Your task to perform on an android device: Go to calendar. Show me events next week Image 0: 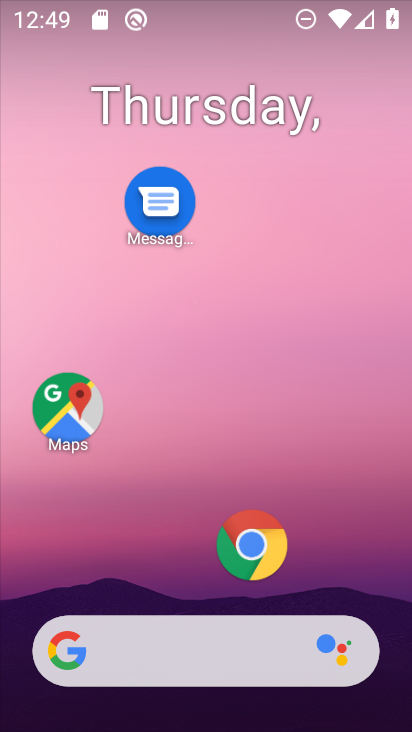
Step 0: drag from (187, 564) to (191, 199)
Your task to perform on an android device: Go to calendar. Show me events next week Image 1: 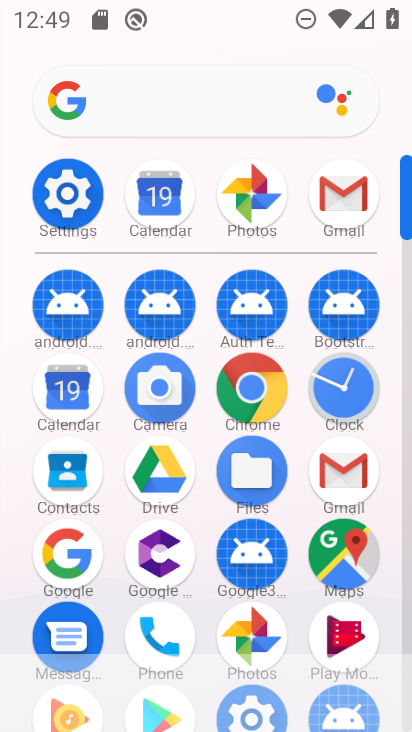
Step 1: click (131, 198)
Your task to perform on an android device: Go to calendar. Show me events next week Image 2: 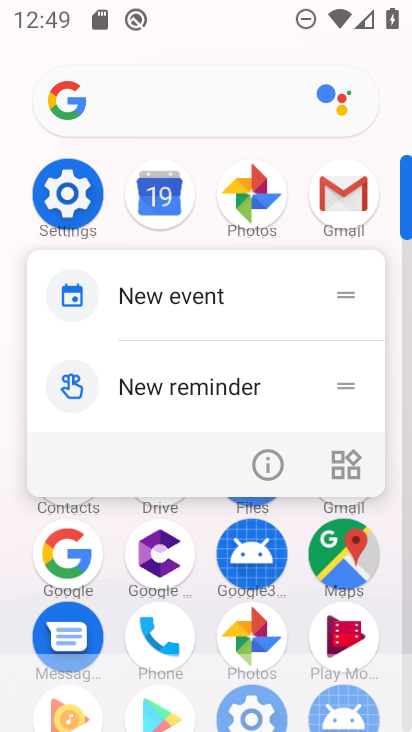
Step 2: click (155, 176)
Your task to perform on an android device: Go to calendar. Show me events next week Image 3: 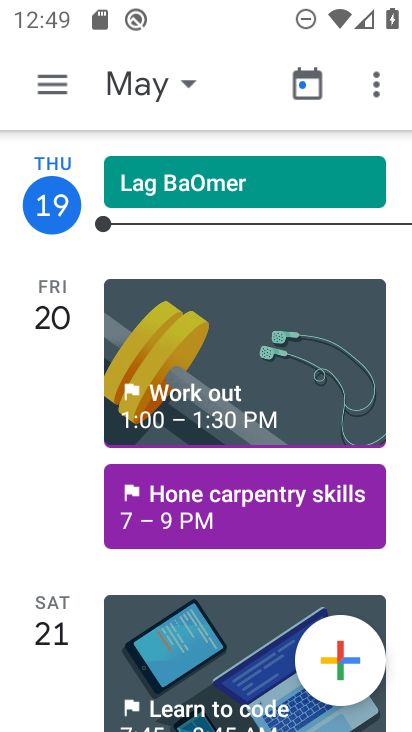
Step 3: click (174, 92)
Your task to perform on an android device: Go to calendar. Show me events next week Image 4: 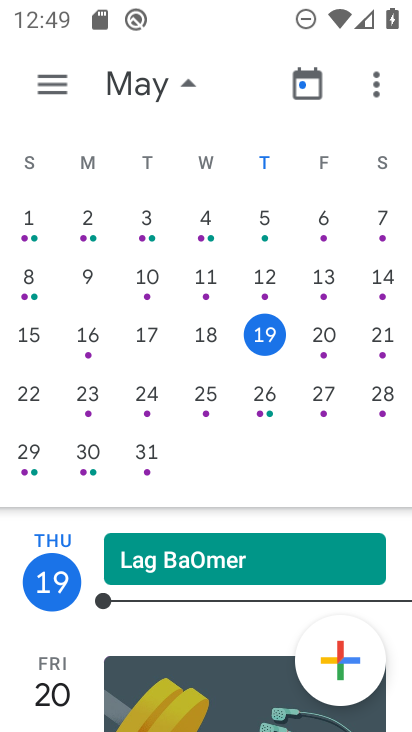
Step 4: click (32, 391)
Your task to perform on an android device: Go to calendar. Show me events next week Image 5: 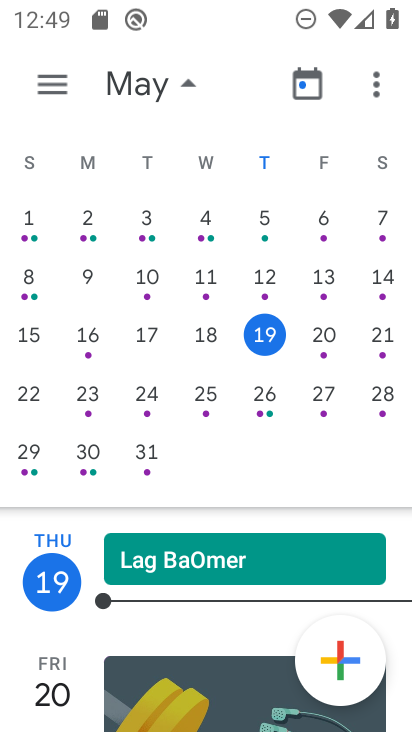
Step 5: click (34, 398)
Your task to perform on an android device: Go to calendar. Show me events next week Image 6: 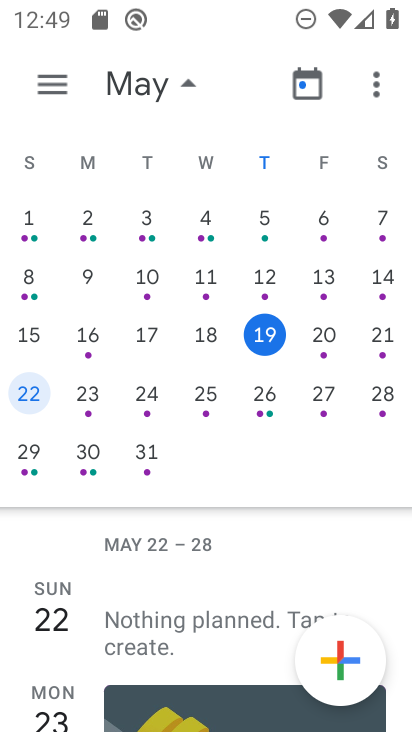
Step 6: task complete